Your task to perform on an android device: Go to wifi settings Image 0: 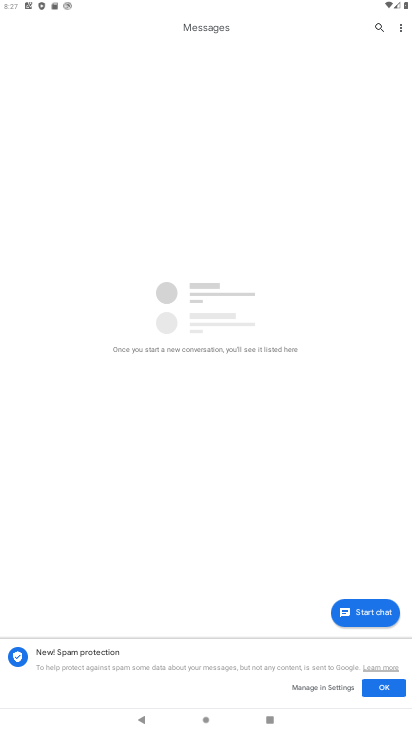
Step 0: press home button
Your task to perform on an android device: Go to wifi settings Image 1: 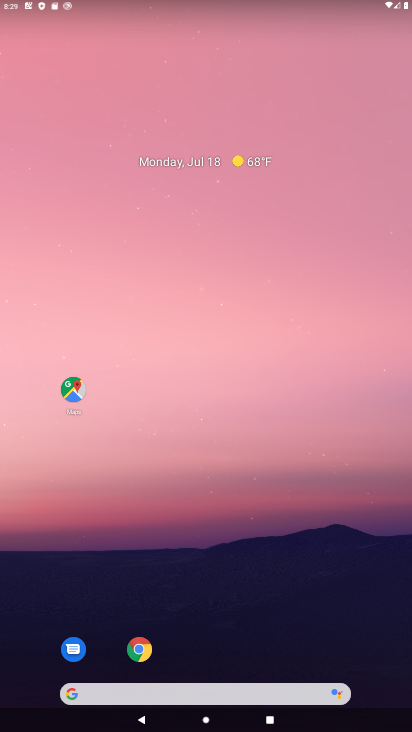
Step 1: drag from (214, 705) to (317, 113)
Your task to perform on an android device: Go to wifi settings Image 2: 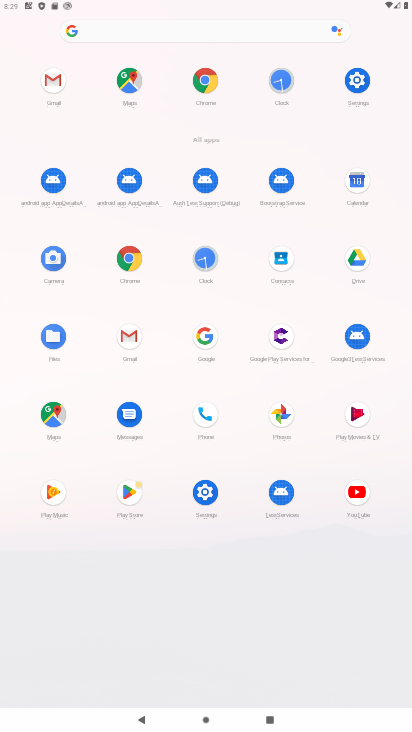
Step 2: click (370, 81)
Your task to perform on an android device: Go to wifi settings Image 3: 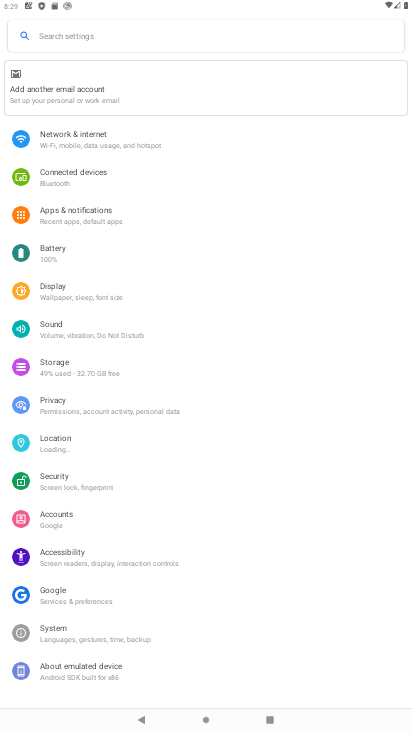
Step 3: click (162, 146)
Your task to perform on an android device: Go to wifi settings Image 4: 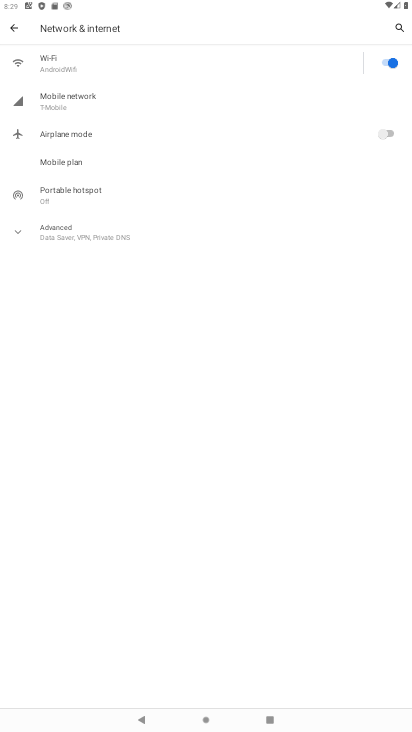
Step 4: click (175, 61)
Your task to perform on an android device: Go to wifi settings Image 5: 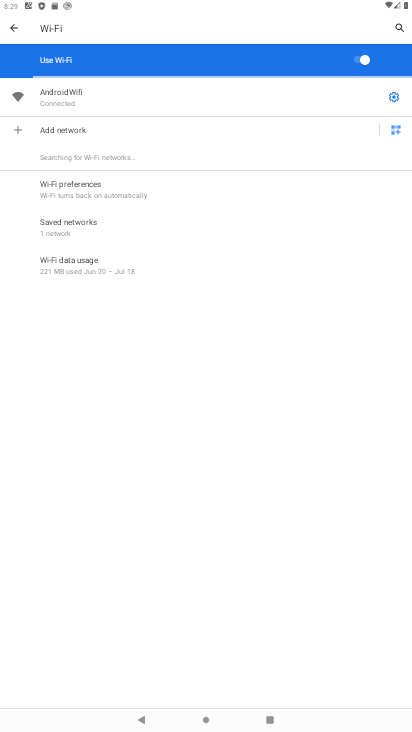
Step 5: click (394, 91)
Your task to perform on an android device: Go to wifi settings Image 6: 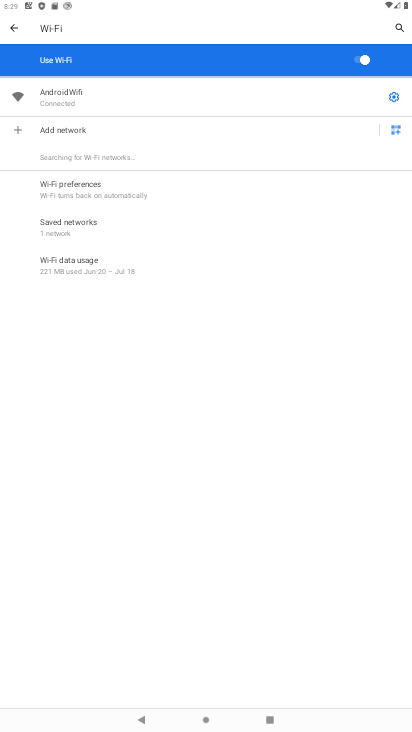
Step 6: click (395, 100)
Your task to perform on an android device: Go to wifi settings Image 7: 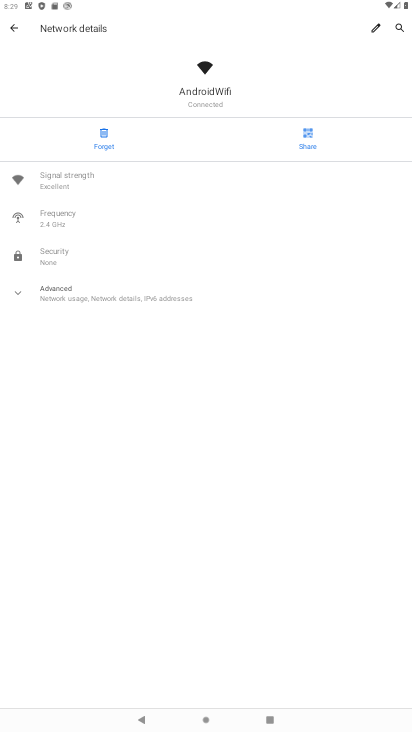
Step 7: task complete